Your task to perform on an android device: allow notifications from all sites in the chrome app Image 0: 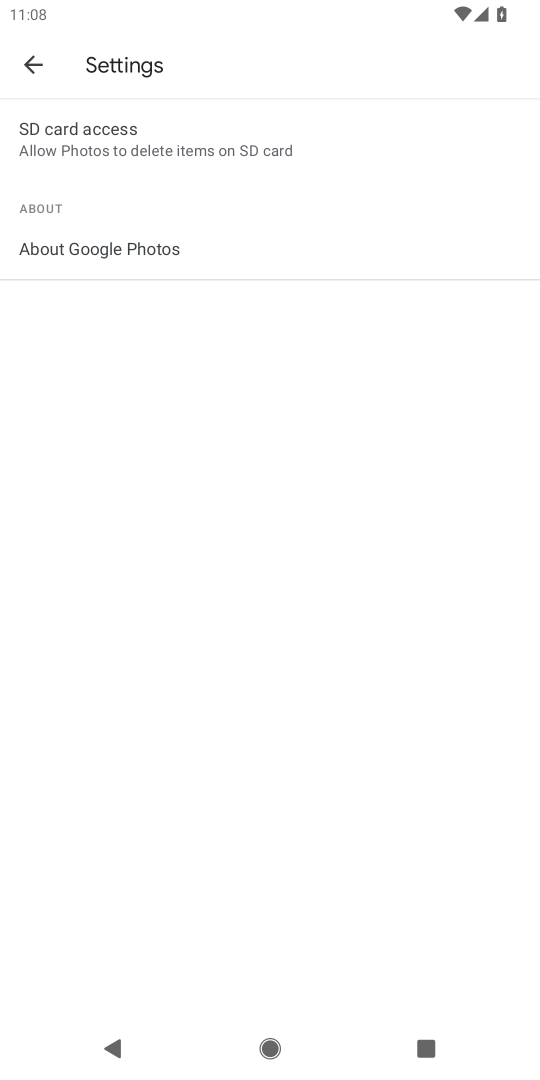
Step 0: press home button
Your task to perform on an android device: allow notifications from all sites in the chrome app Image 1: 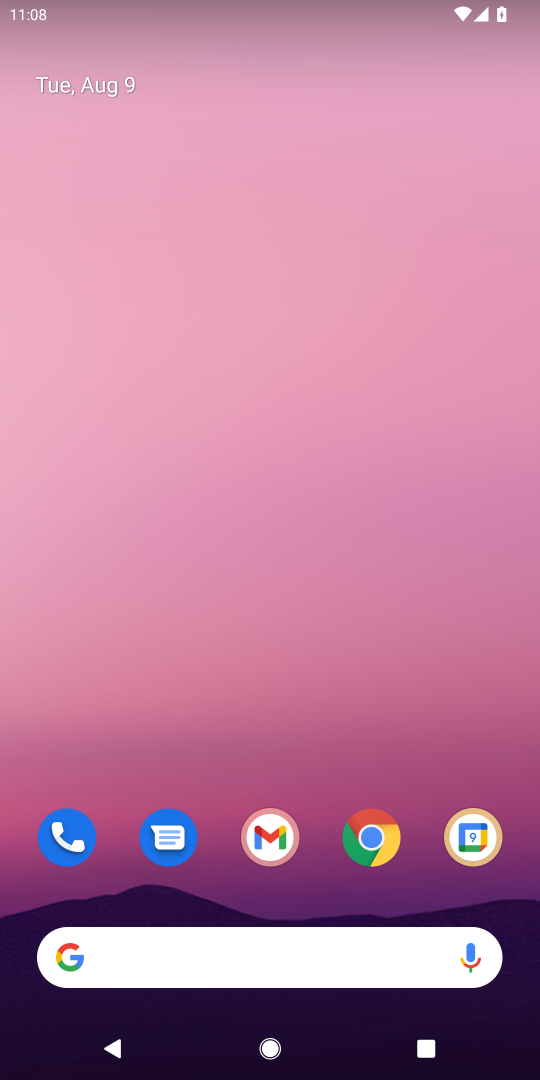
Step 1: click (369, 841)
Your task to perform on an android device: allow notifications from all sites in the chrome app Image 2: 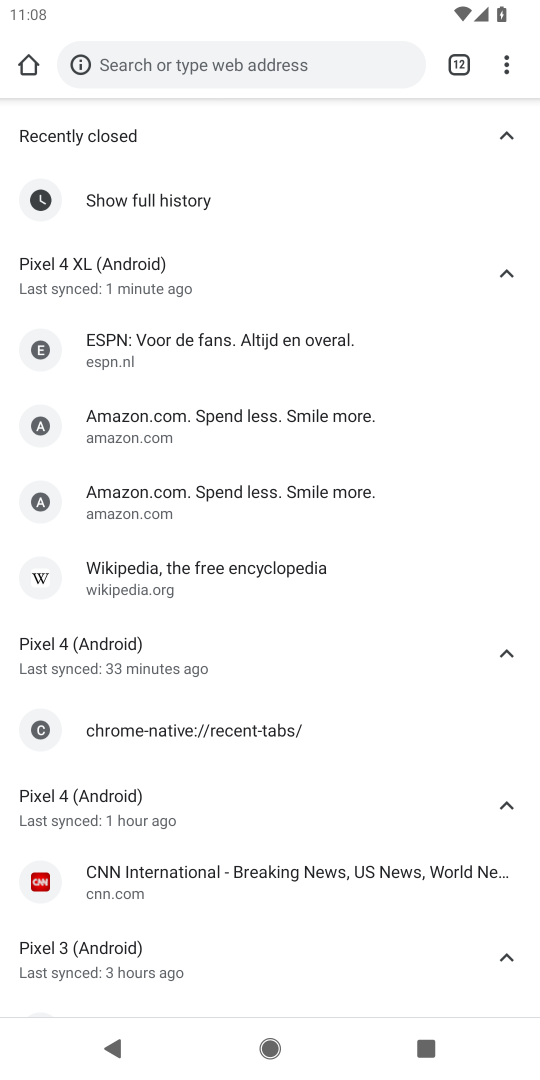
Step 2: drag from (507, 69) to (329, 631)
Your task to perform on an android device: allow notifications from all sites in the chrome app Image 3: 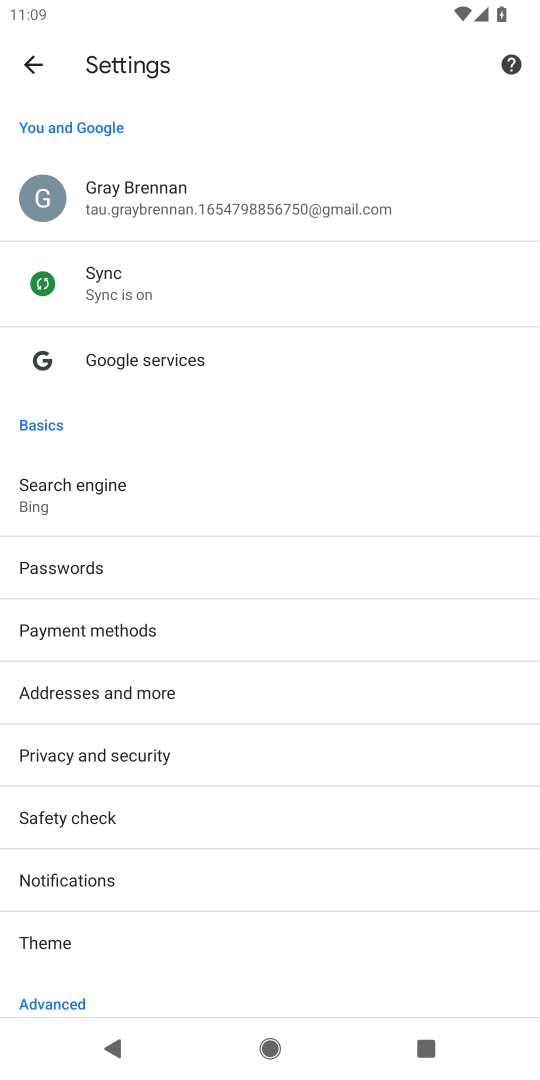
Step 3: drag from (171, 880) to (168, 493)
Your task to perform on an android device: allow notifications from all sites in the chrome app Image 4: 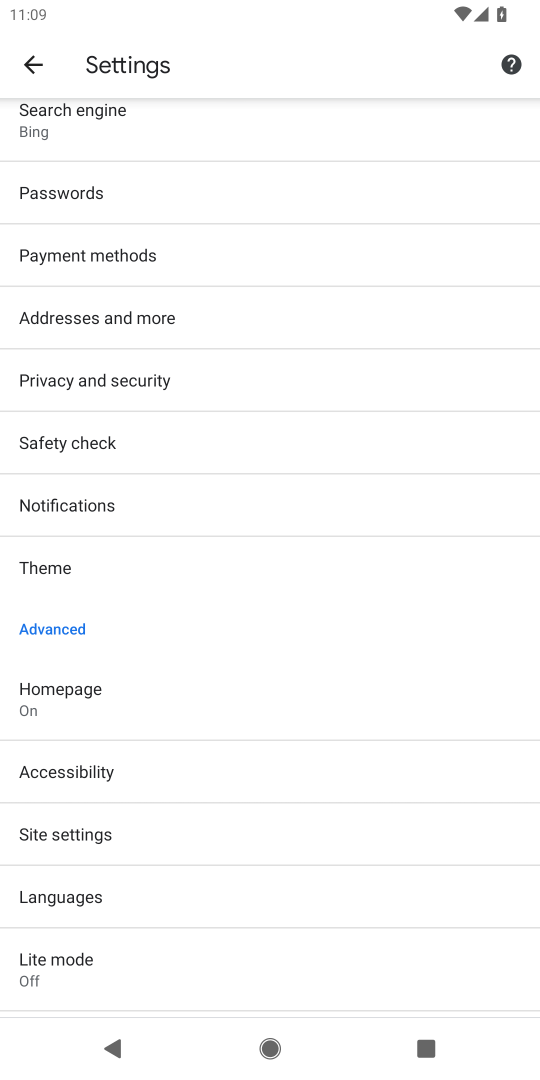
Step 4: click (157, 506)
Your task to perform on an android device: allow notifications from all sites in the chrome app Image 5: 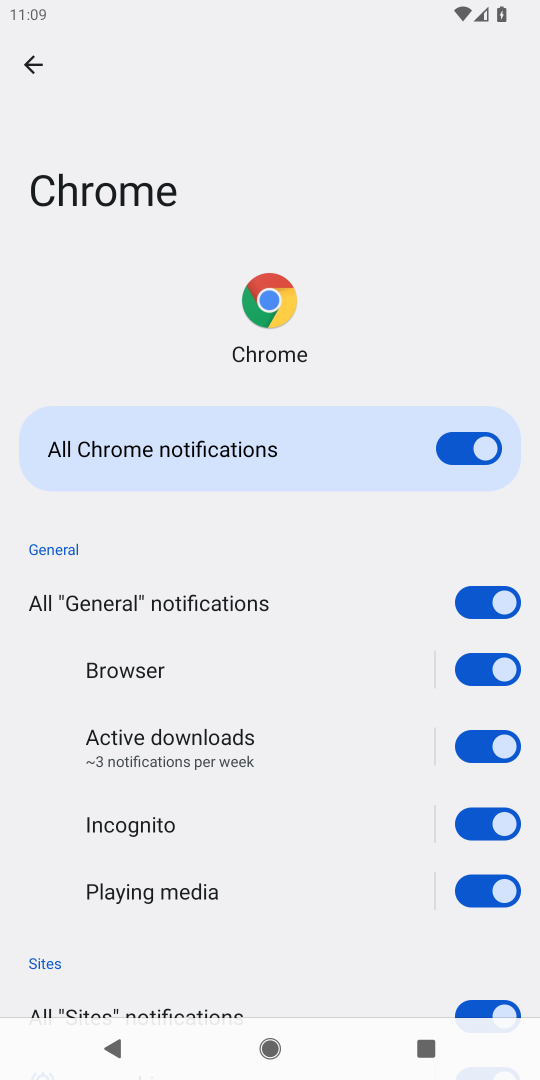
Step 5: task complete